Your task to perform on an android device: Is it going to rain tomorrow? Image 0: 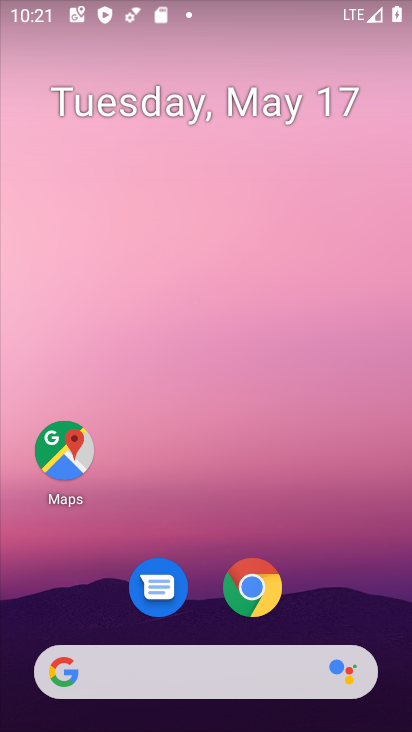
Step 0: drag from (407, 624) to (299, 75)
Your task to perform on an android device: Is it going to rain tomorrow? Image 1: 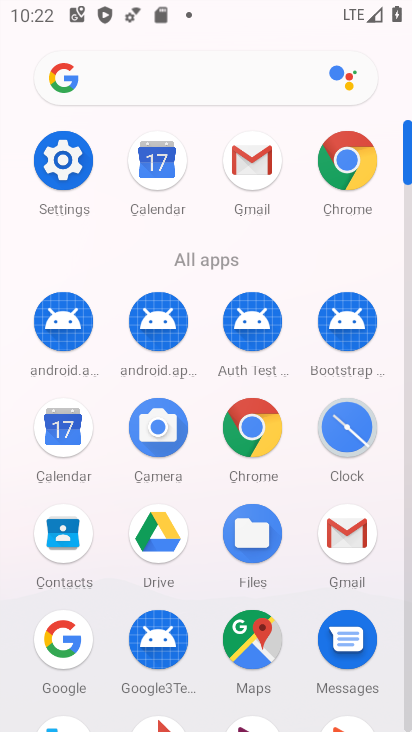
Step 1: click (74, 624)
Your task to perform on an android device: Is it going to rain tomorrow? Image 2: 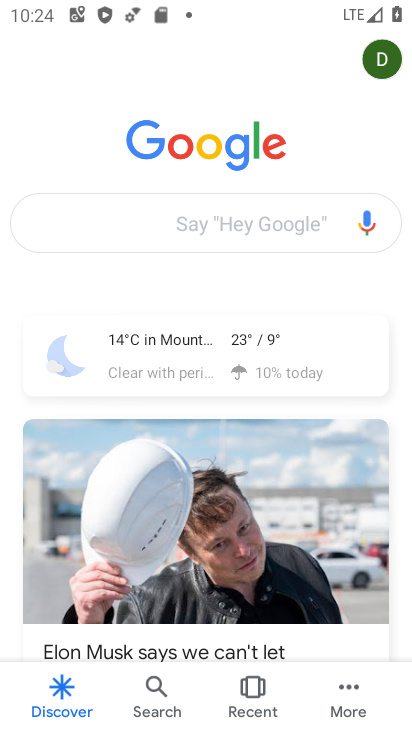
Step 2: click (195, 217)
Your task to perform on an android device: Is it going to rain tomorrow? Image 3: 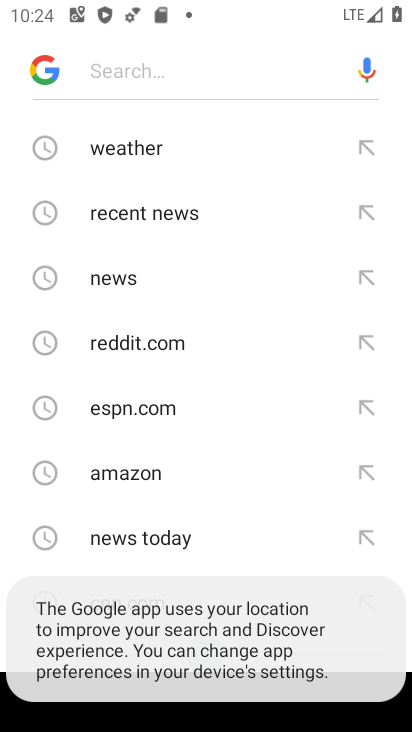
Step 3: drag from (181, 523) to (222, 42)
Your task to perform on an android device: Is it going to rain tomorrow? Image 4: 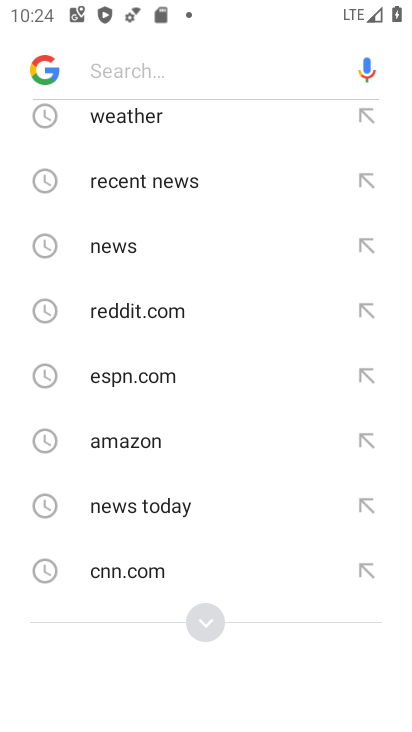
Step 4: click (206, 638)
Your task to perform on an android device: Is it going to rain tomorrow? Image 5: 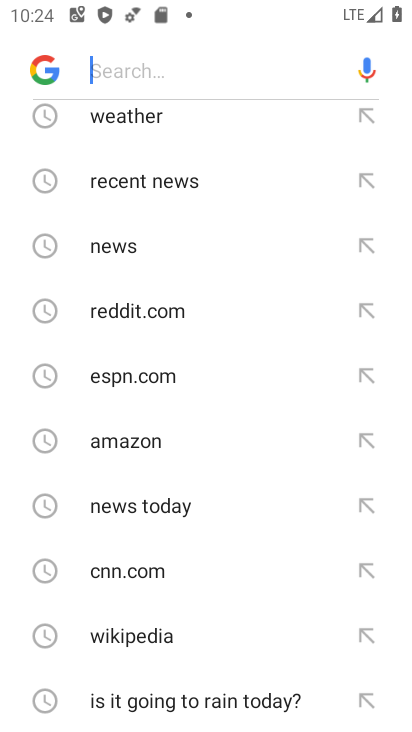
Step 5: drag from (226, 664) to (264, 90)
Your task to perform on an android device: Is it going to rain tomorrow? Image 6: 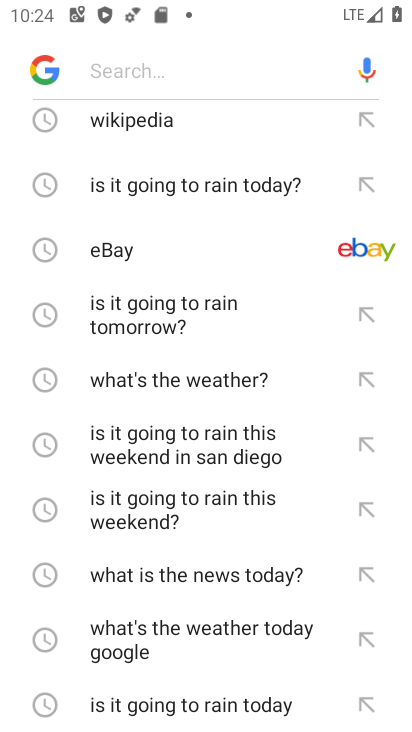
Step 6: click (219, 318)
Your task to perform on an android device: Is it going to rain tomorrow? Image 7: 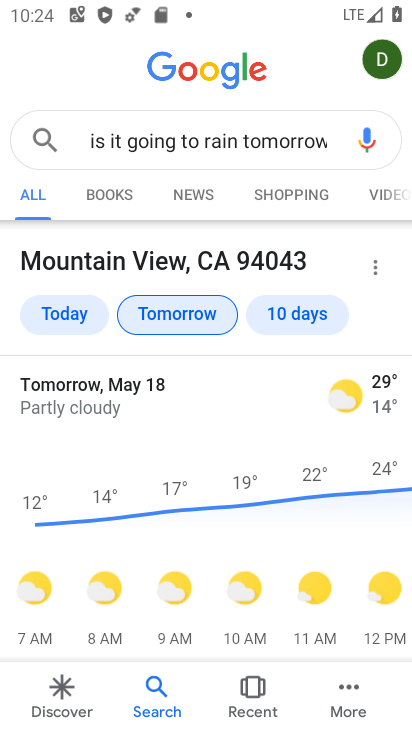
Step 7: task complete